Your task to perform on an android device: empty trash in the gmail app Image 0: 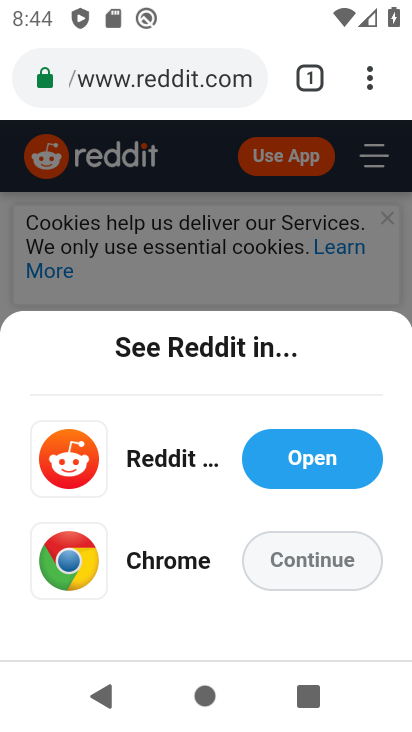
Step 0: press back button
Your task to perform on an android device: empty trash in the gmail app Image 1: 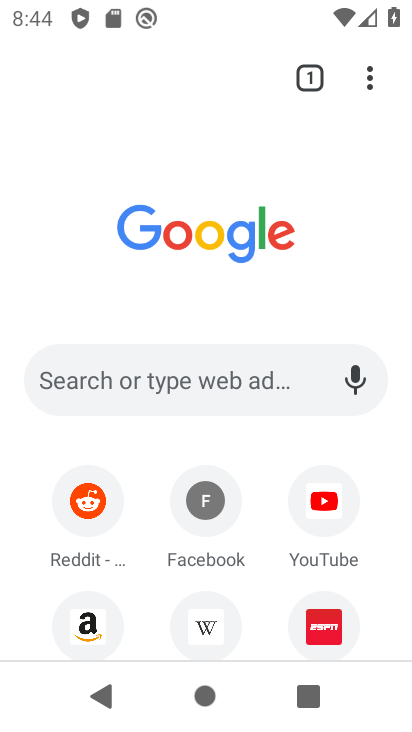
Step 1: press back button
Your task to perform on an android device: empty trash in the gmail app Image 2: 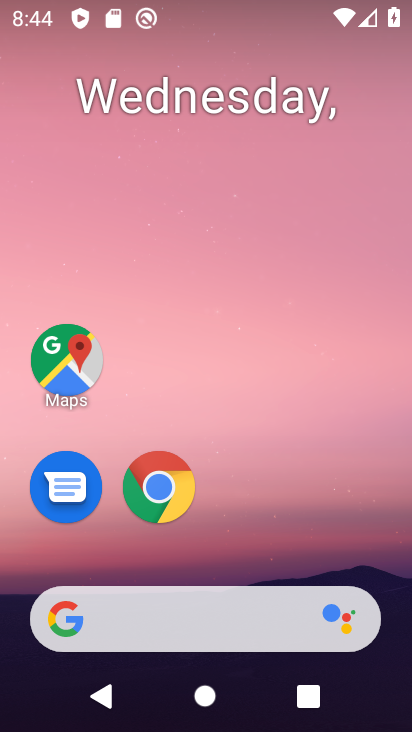
Step 2: drag from (253, 441) to (338, 18)
Your task to perform on an android device: empty trash in the gmail app Image 3: 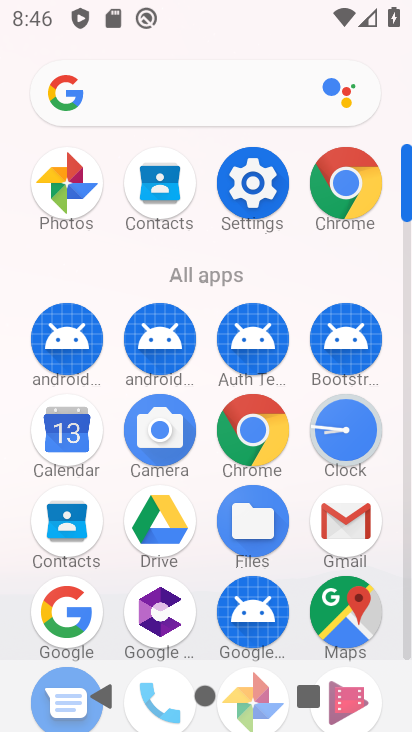
Step 3: click (354, 532)
Your task to perform on an android device: empty trash in the gmail app Image 4: 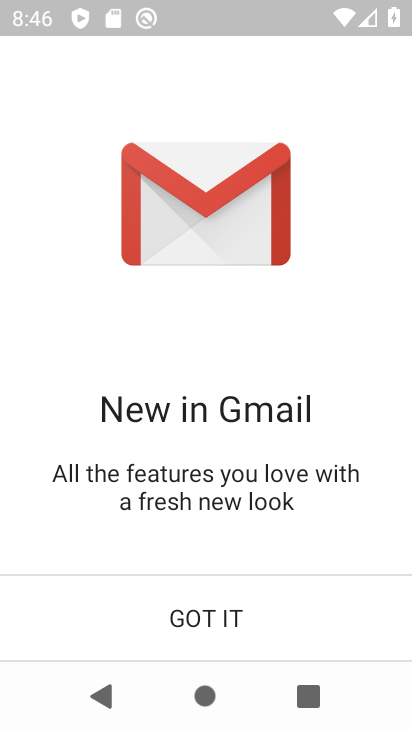
Step 4: click (199, 614)
Your task to perform on an android device: empty trash in the gmail app Image 5: 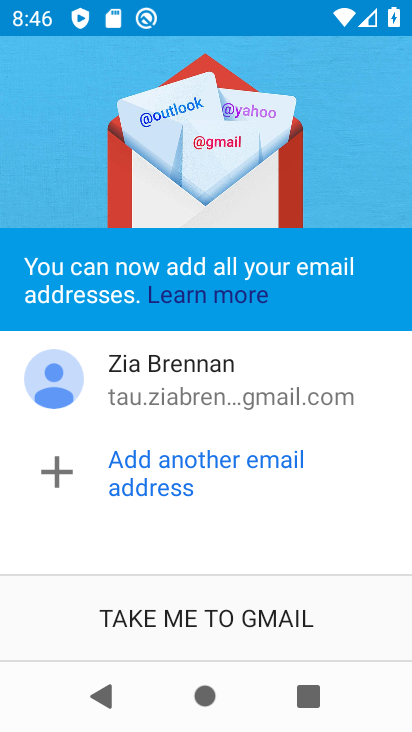
Step 5: click (186, 611)
Your task to perform on an android device: empty trash in the gmail app Image 6: 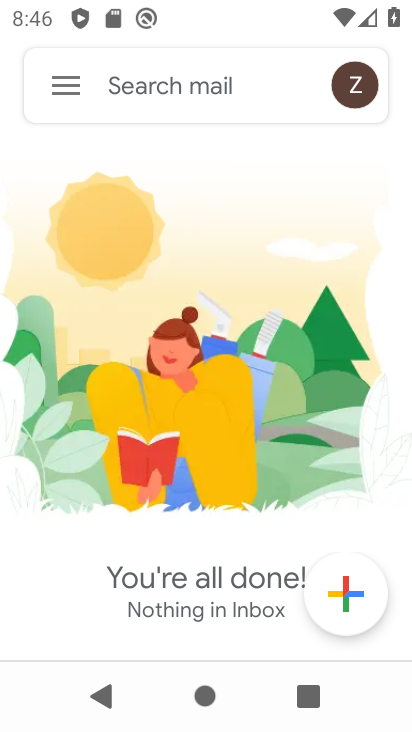
Step 6: click (45, 80)
Your task to perform on an android device: empty trash in the gmail app Image 7: 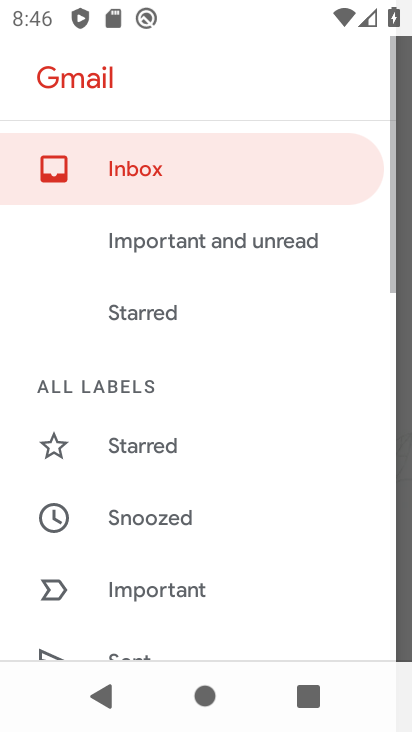
Step 7: drag from (170, 582) to (250, 97)
Your task to perform on an android device: empty trash in the gmail app Image 8: 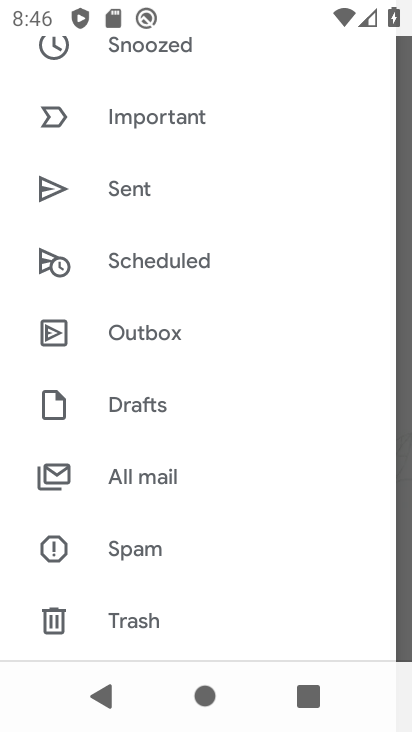
Step 8: click (143, 607)
Your task to perform on an android device: empty trash in the gmail app Image 9: 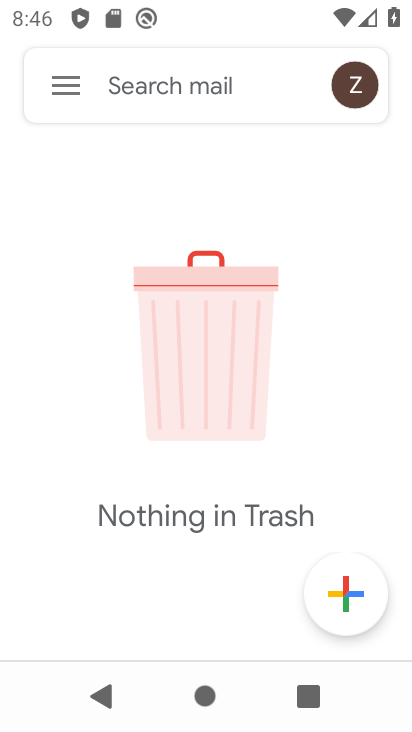
Step 9: task complete